Your task to perform on an android device: choose inbox layout in the gmail app Image 0: 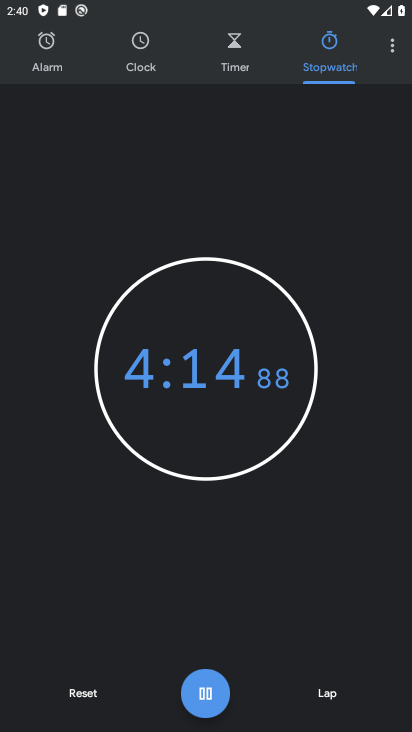
Step 0: press home button
Your task to perform on an android device: choose inbox layout in the gmail app Image 1: 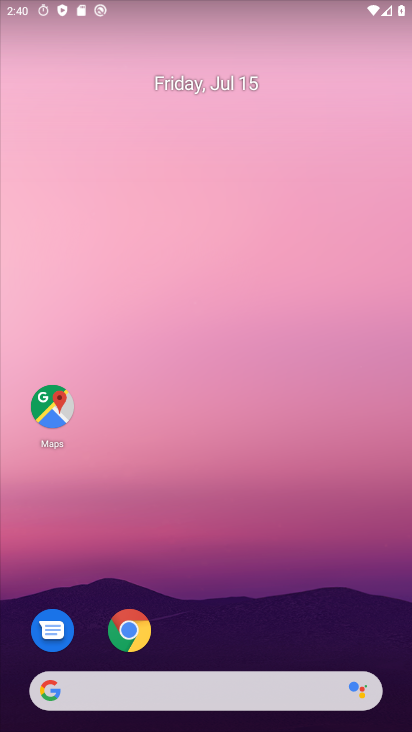
Step 1: drag from (346, 536) to (333, 308)
Your task to perform on an android device: choose inbox layout in the gmail app Image 2: 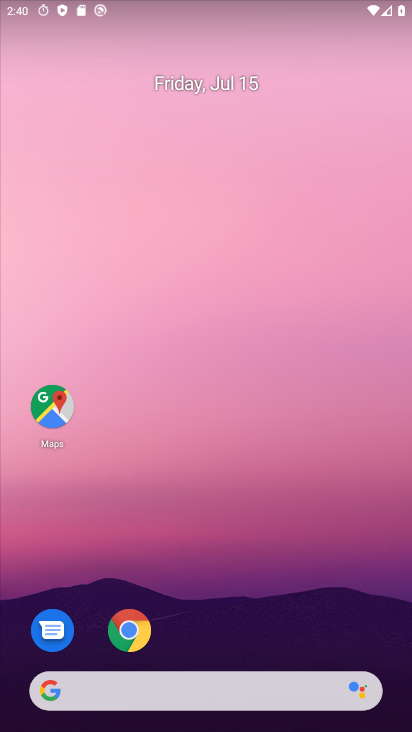
Step 2: drag from (328, 523) to (306, 28)
Your task to perform on an android device: choose inbox layout in the gmail app Image 3: 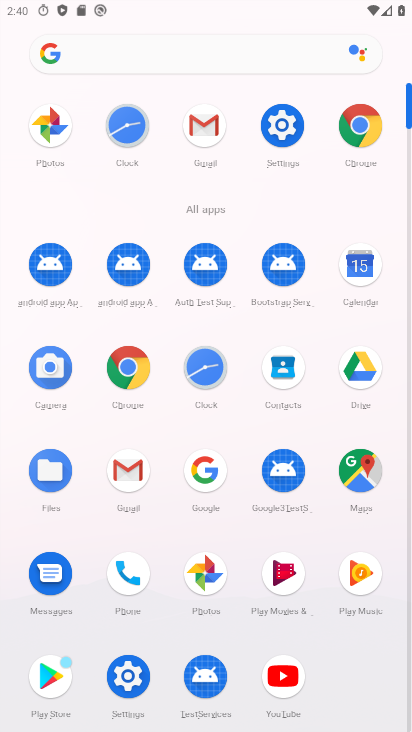
Step 3: click (204, 132)
Your task to perform on an android device: choose inbox layout in the gmail app Image 4: 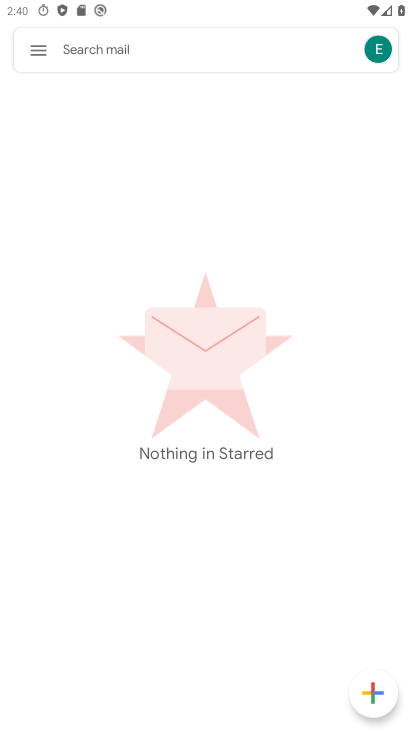
Step 4: click (36, 39)
Your task to perform on an android device: choose inbox layout in the gmail app Image 5: 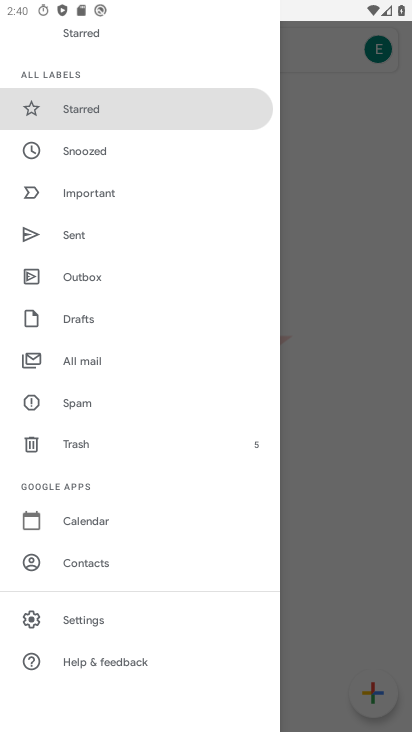
Step 5: click (106, 613)
Your task to perform on an android device: choose inbox layout in the gmail app Image 6: 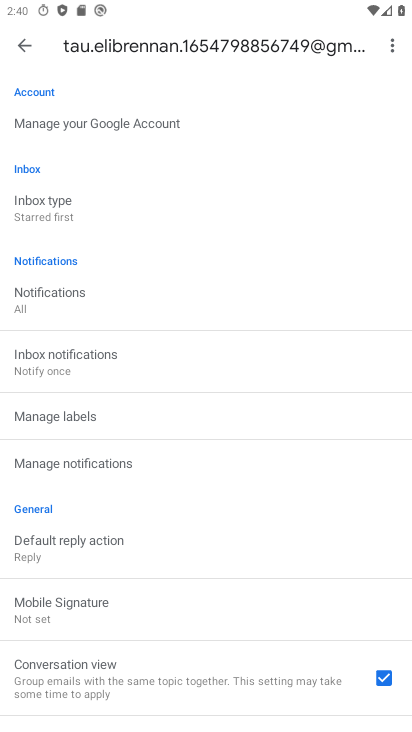
Step 6: click (44, 223)
Your task to perform on an android device: choose inbox layout in the gmail app Image 7: 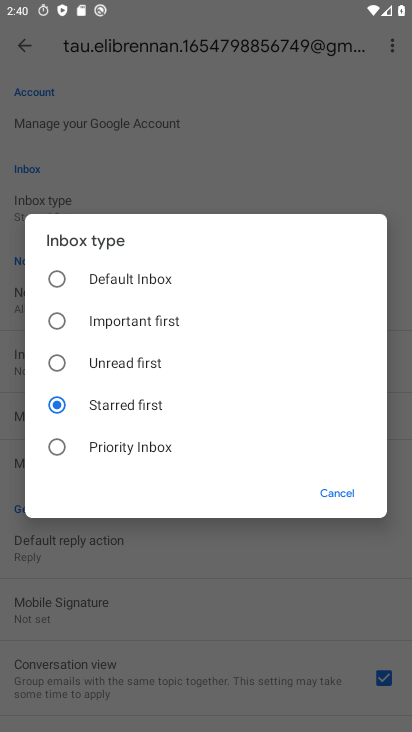
Step 7: click (124, 273)
Your task to perform on an android device: choose inbox layout in the gmail app Image 8: 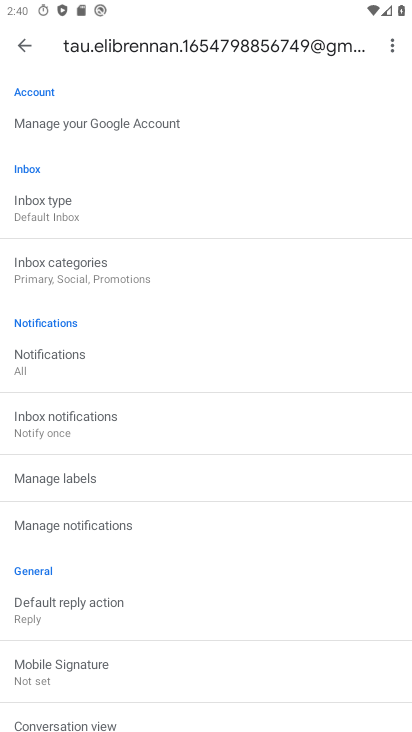
Step 8: task complete